Your task to perform on an android device: Go to battery settings Image 0: 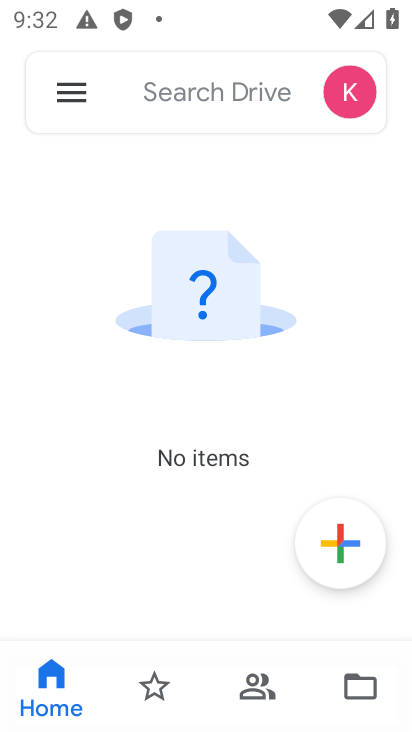
Step 0: press home button
Your task to perform on an android device: Go to battery settings Image 1: 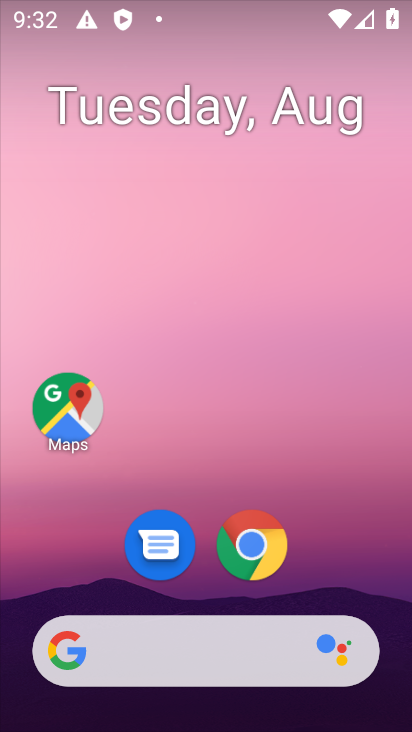
Step 1: drag from (166, 457) to (319, 177)
Your task to perform on an android device: Go to battery settings Image 2: 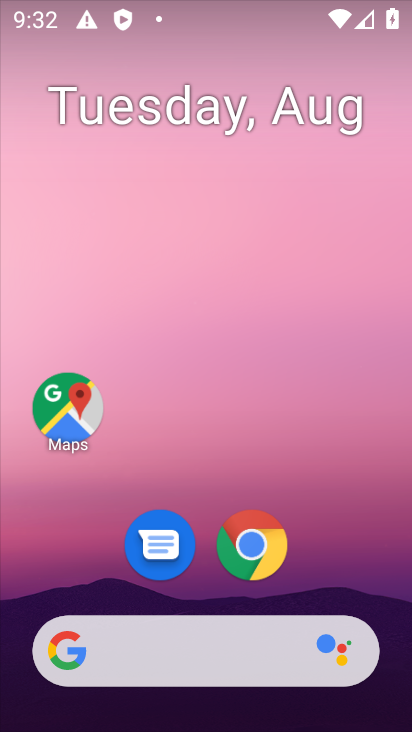
Step 2: press home button
Your task to perform on an android device: Go to battery settings Image 3: 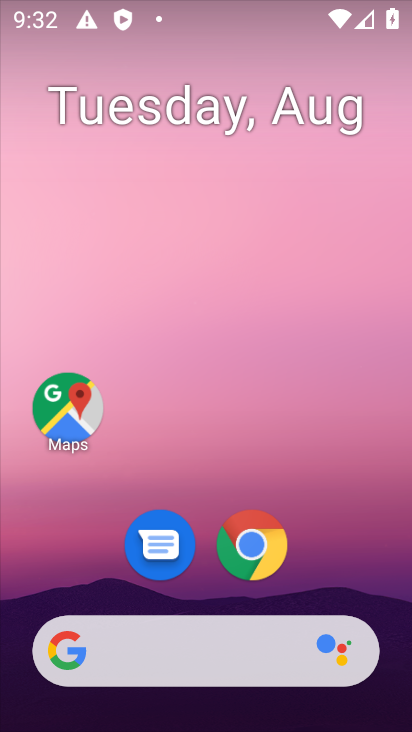
Step 3: drag from (86, 423) to (234, 93)
Your task to perform on an android device: Go to battery settings Image 4: 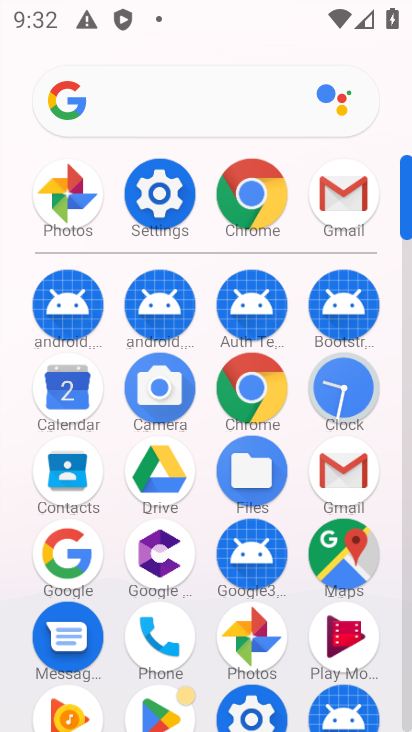
Step 4: click (152, 173)
Your task to perform on an android device: Go to battery settings Image 5: 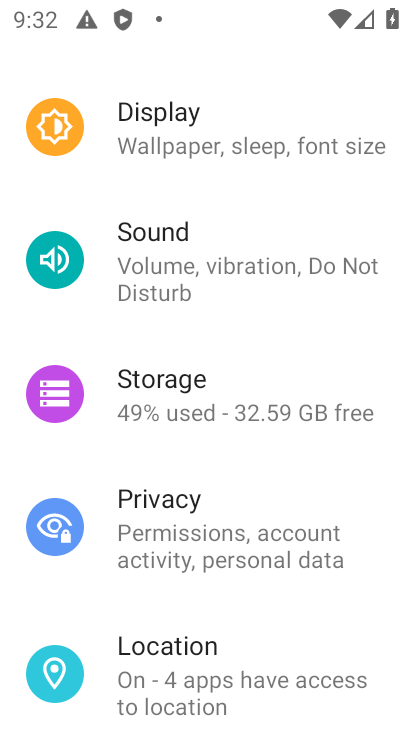
Step 5: drag from (13, 522) to (195, 206)
Your task to perform on an android device: Go to battery settings Image 6: 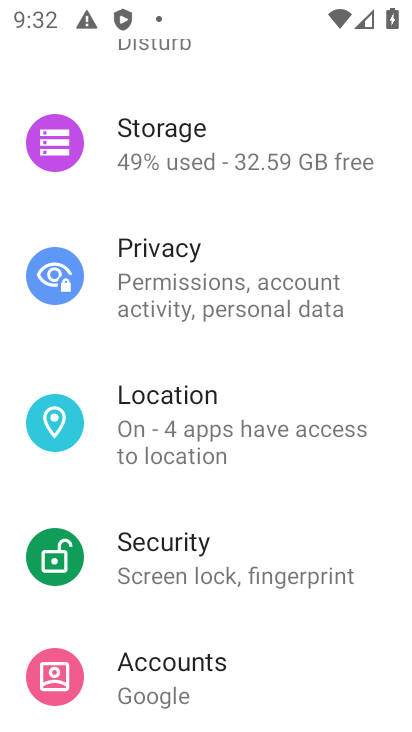
Step 6: drag from (25, 622) to (334, 152)
Your task to perform on an android device: Go to battery settings Image 7: 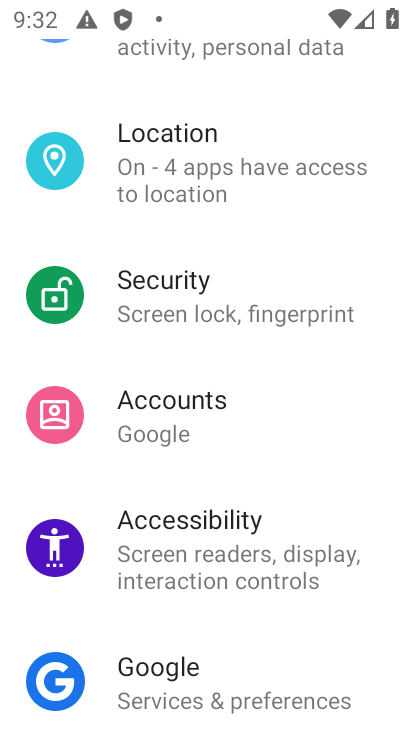
Step 7: drag from (237, 218) to (128, 625)
Your task to perform on an android device: Go to battery settings Image 8: 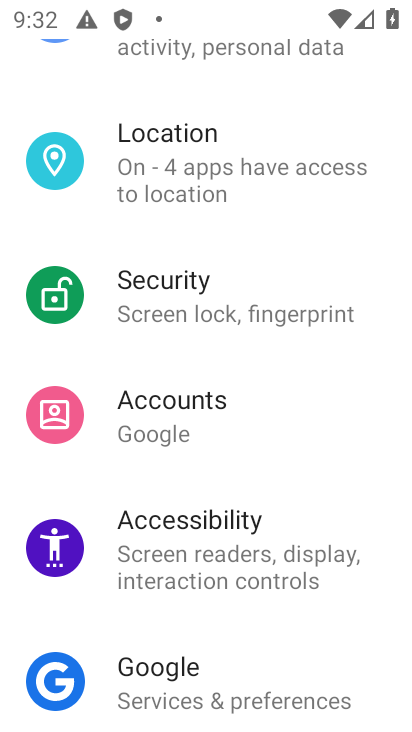
Step 8: drag from (177, 95) to (6, 565)
Your task to perform on an android device: Go to battery settings Image 9: 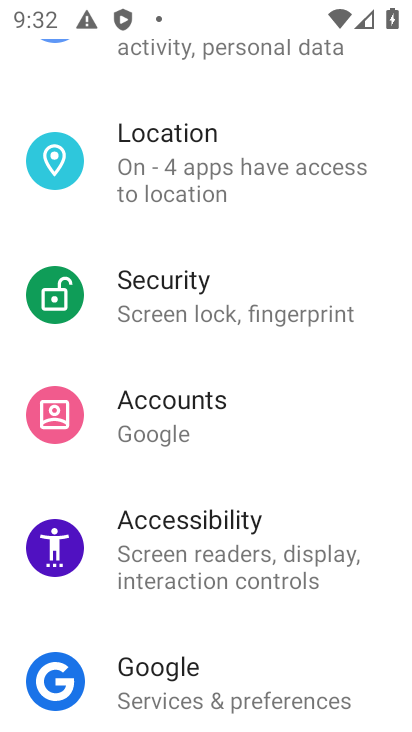
Step 9: drag from (125, 138) to (5, 248)
Your task to perform on an android device: Go to battery settings Image 10: 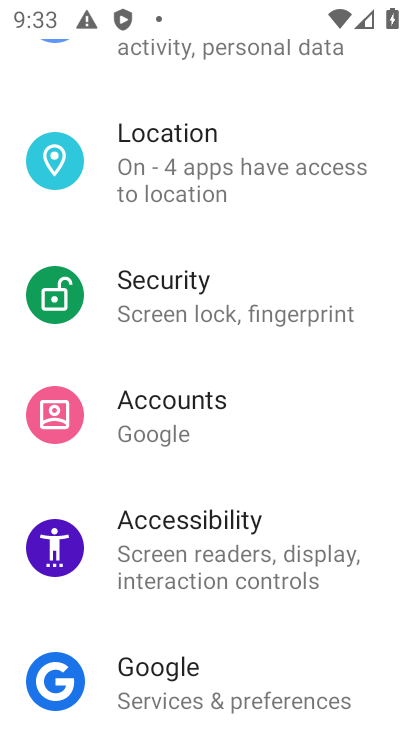
Step 10: drag from (54, 141) to (68, 624)
Your task to perform on an android device: Go to battery settings Image 11: 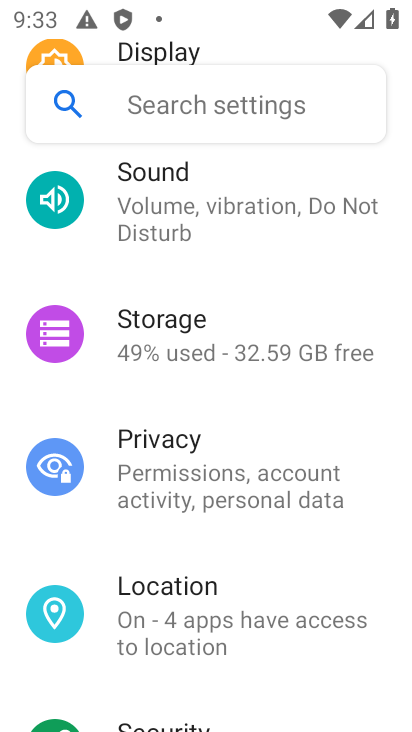
Step 11: drag from (215, 157) to (72, 592)
Your task to perform on an android device: Go to battery settings Image 12: 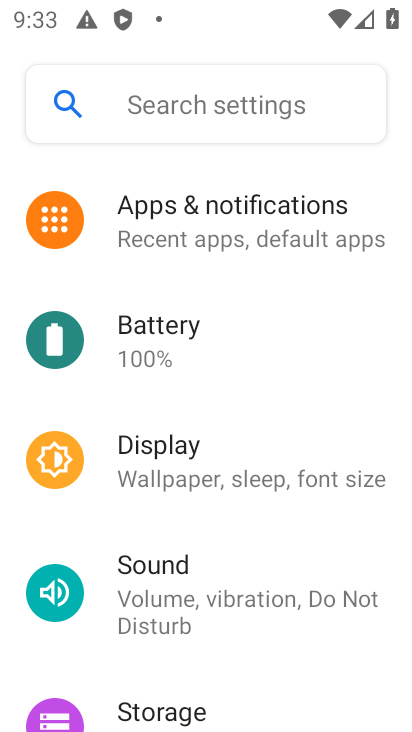
Step 12: click (241, 337)
Your task to perform on an android device: Go to battery settings Image 13: 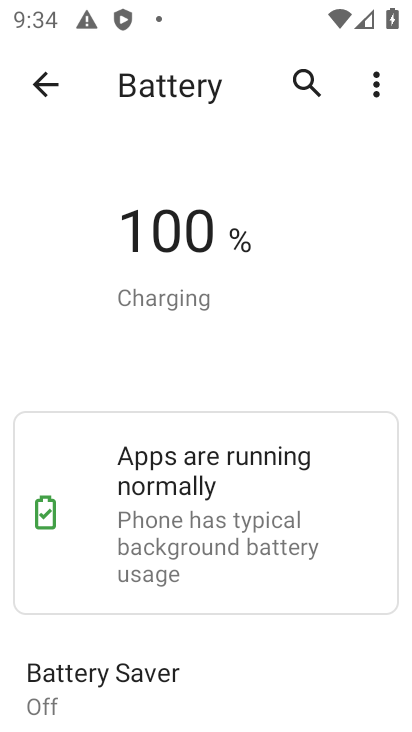
Step 13: task complete